Your task to perform on an android device: Search for flights from NYC to San Francisco Image 0: 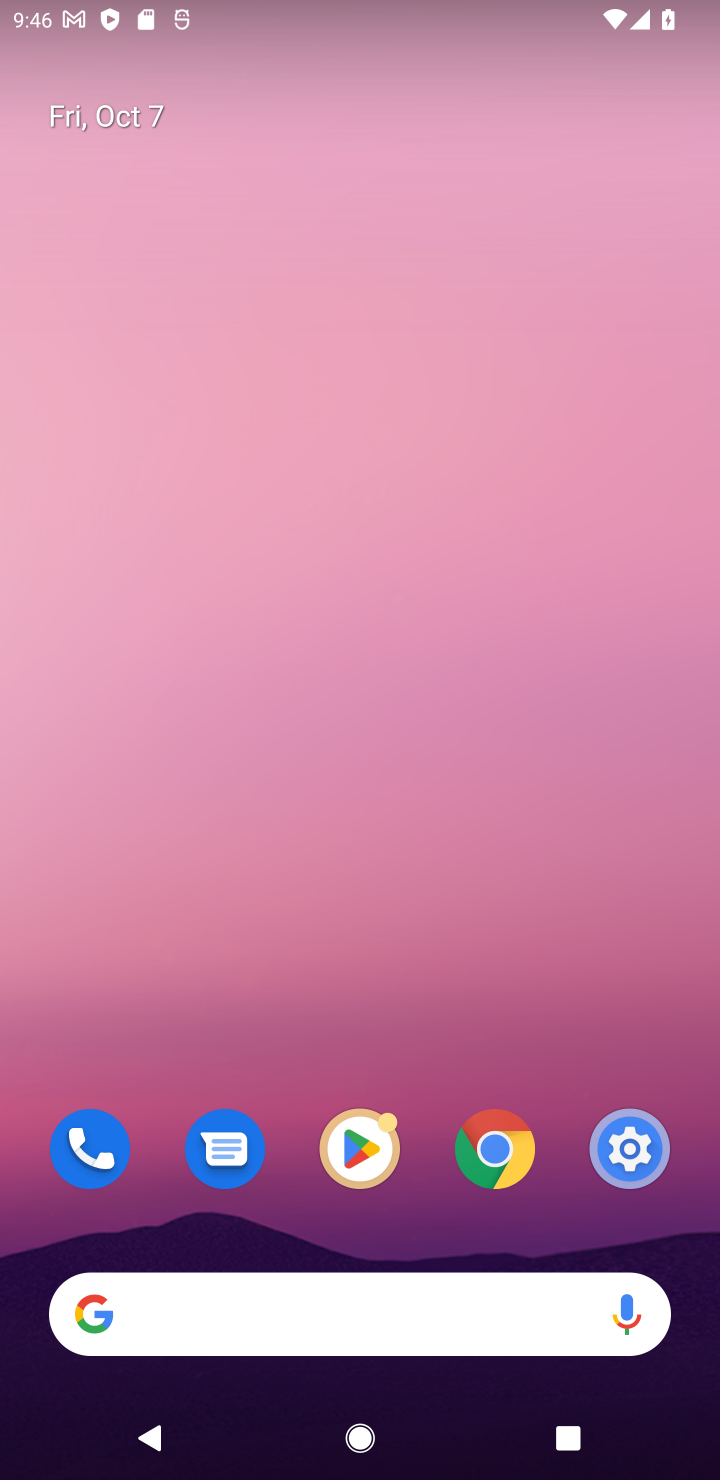
Step 0: click (430, 1324)
Your task to perform on an android device: Search for flights from NYC to San Francisco Image 1: 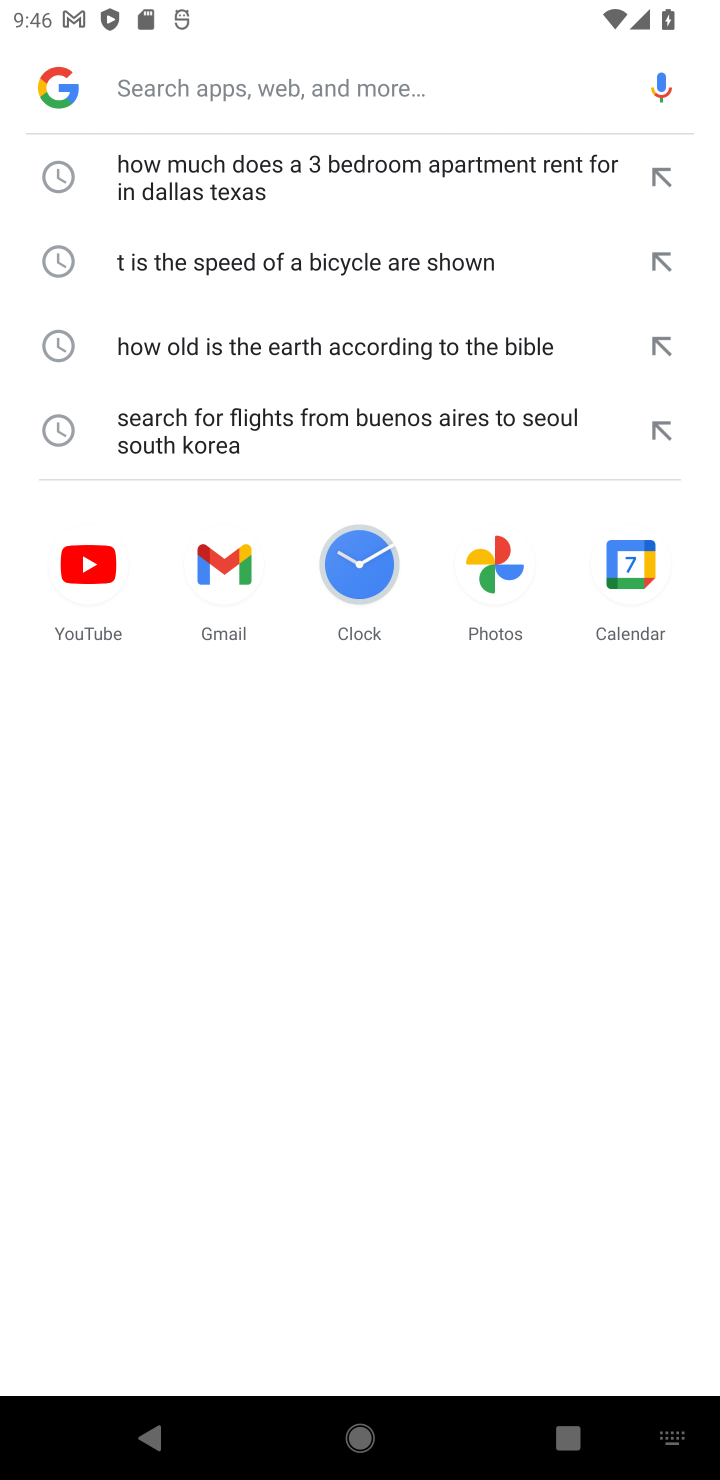
Step 1: type "Search for flights from NYC to San Francisco"
Your task to perform on an android device: Search for flights from NYC to San Francisco Image 2: 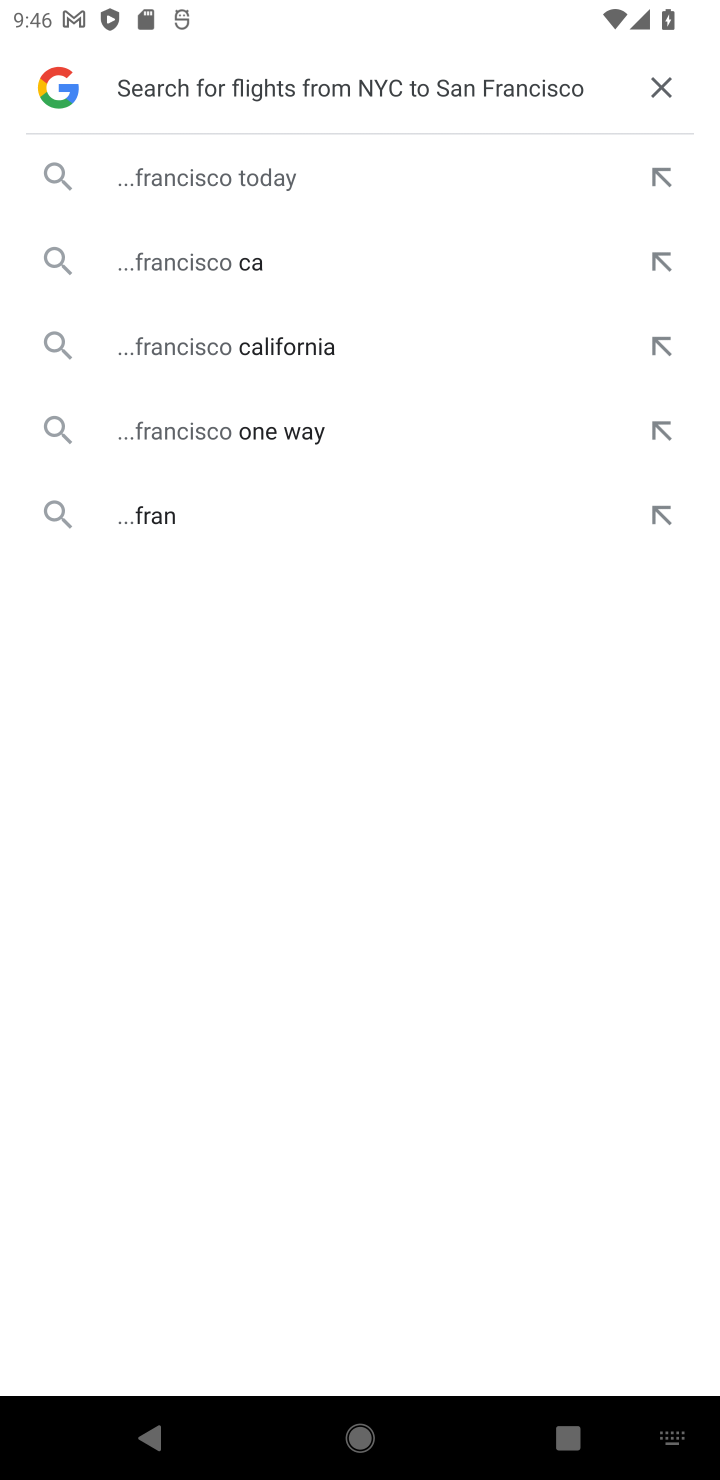
Step 2: click (195, 179)
Your task to perform on an android device: Search for flights from NYC to San Francisco Image 3: 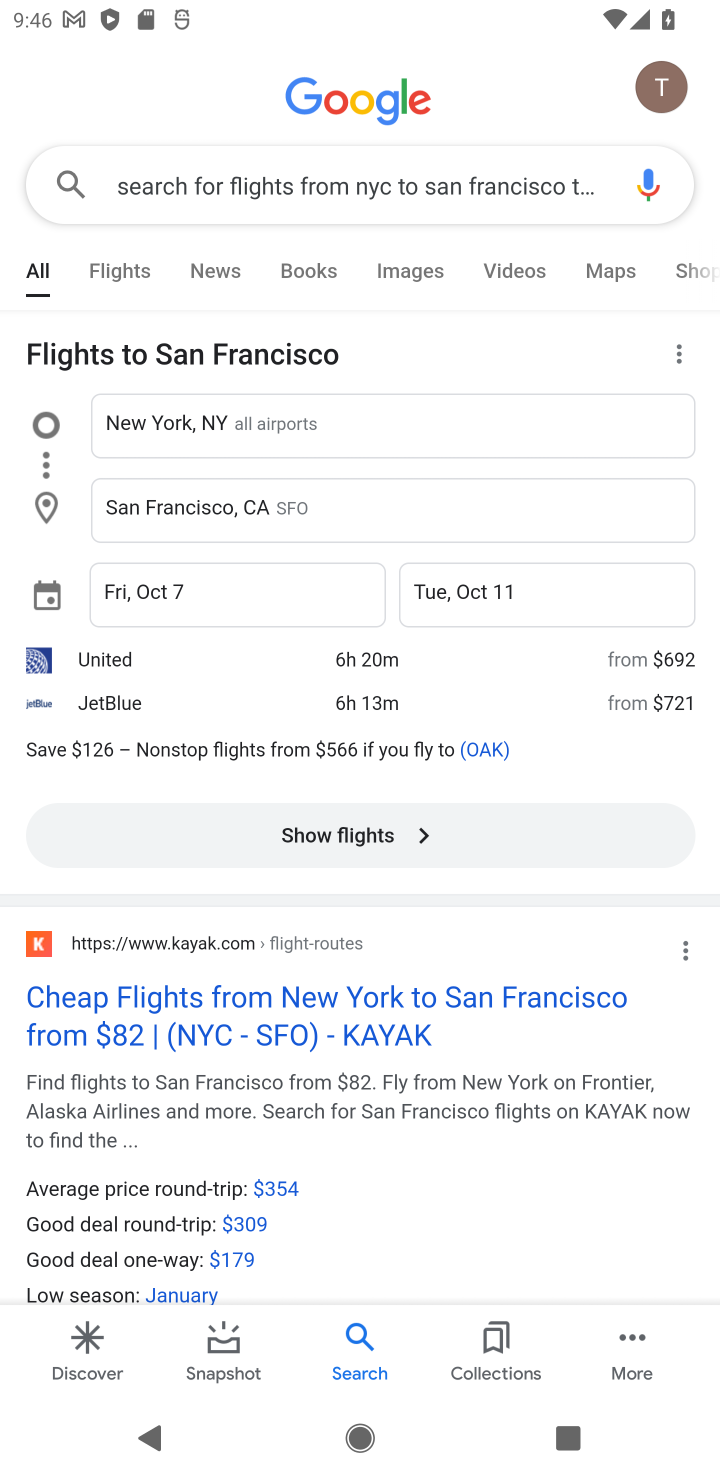
Step 3: task complete